Your task to perform on an android device: Open Google Image 0: 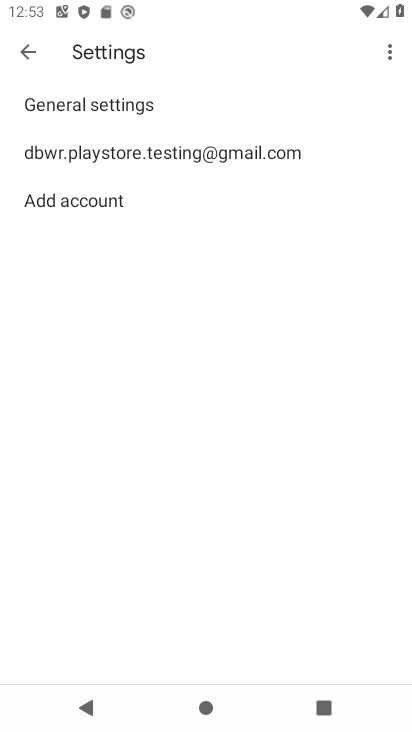
Step 0: press home button
Your task to perform on an android device: Open Google Image 1: 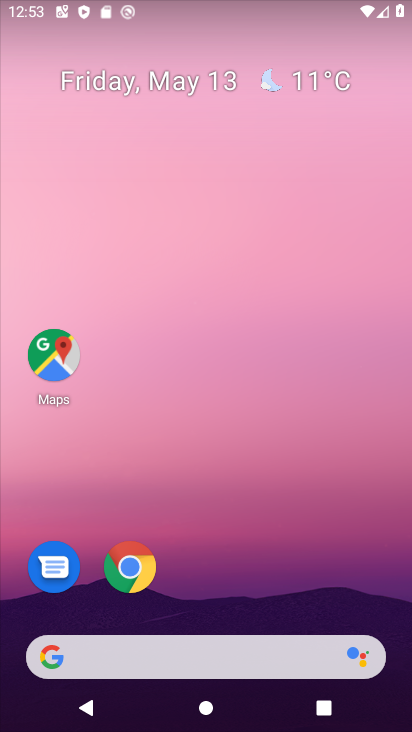
Step 1: drag from (154, 619) to (261, 155)
Your task to perform on an android device: Open Google Image 2: 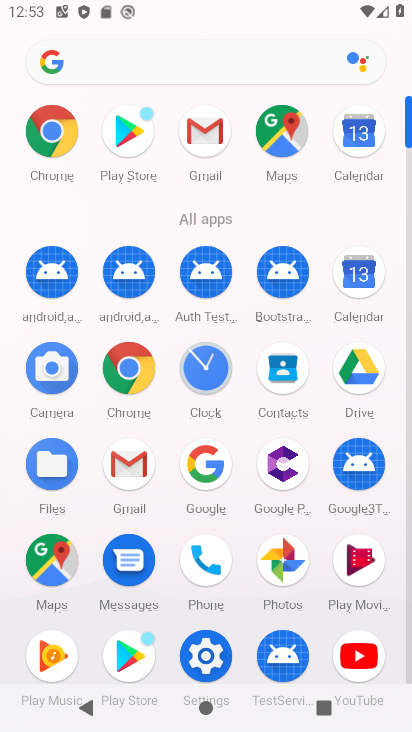
Step 2: click (206, 471)
Your task to perform on an android device: Open Google Image 3: 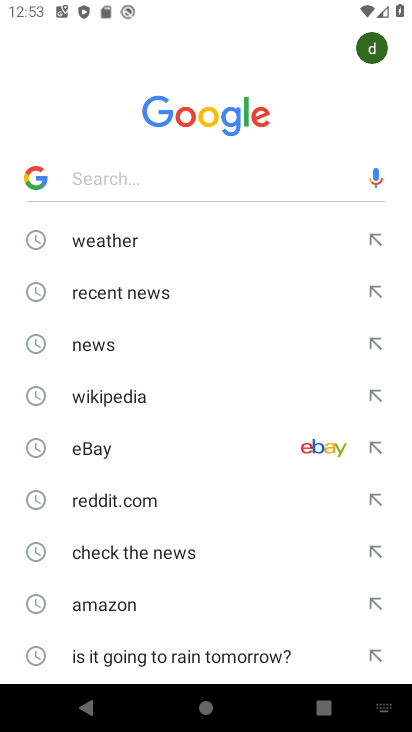
Step 3: task complete